Your task to perform on an android device: Turn off the flashlight Image 0: 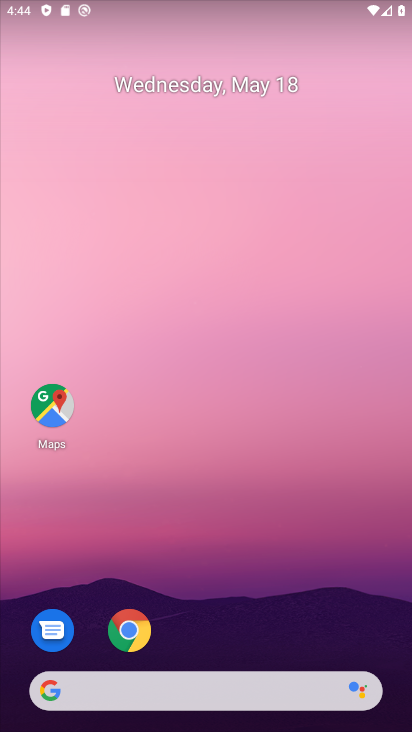
Step 0: drag from (248, 621) to (199, 173)
Your task to perform on an android device: Turn off the flashlight Image 1: 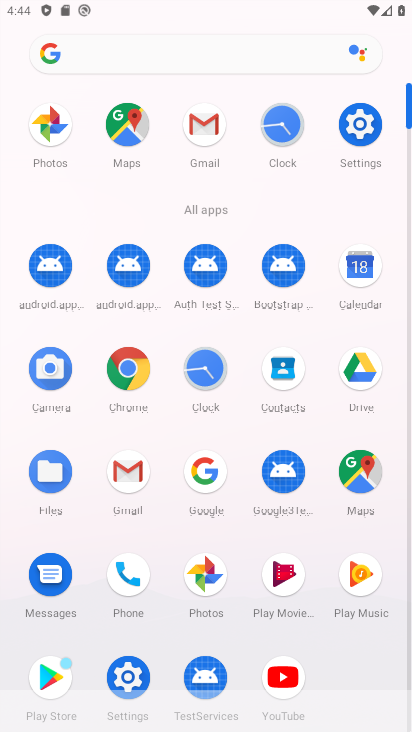
Step 1: click (127, 675)
Your task to perform on an android device: Turn off the flashlight Image 2: 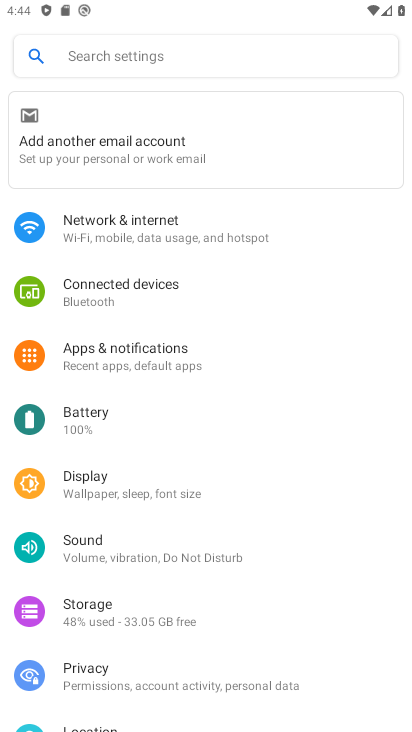
Step 2: click (118, 485)
Your task to perform on an android device: Turn off the flashlight Image 3: 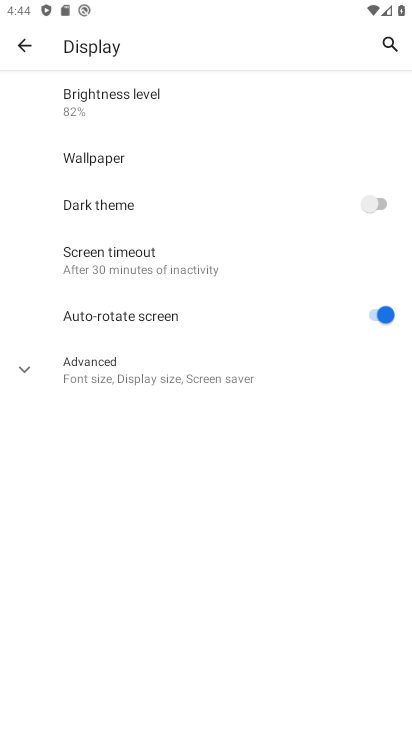
Step 3: click (156, 386)
Your task to perform on an android device: Turn off the flashlight Image 4: 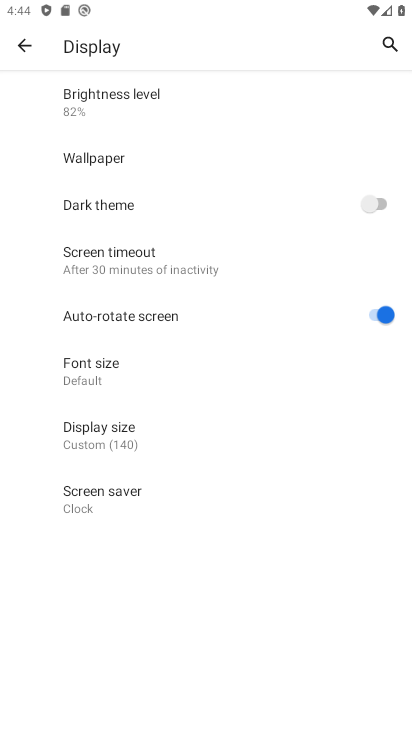
Step 4: click (122, 485)
Your task to perform on an android device: Turn off the flashlight Image 5: 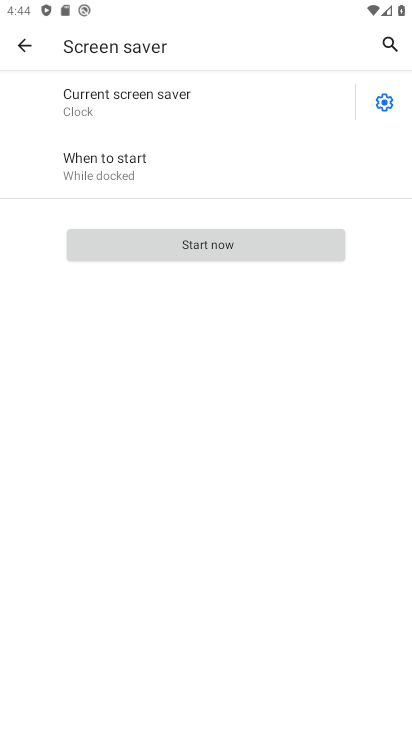
Step 5: click (390, 103)
Your task to perform on an android device: Turn off the flashlight Image 6: 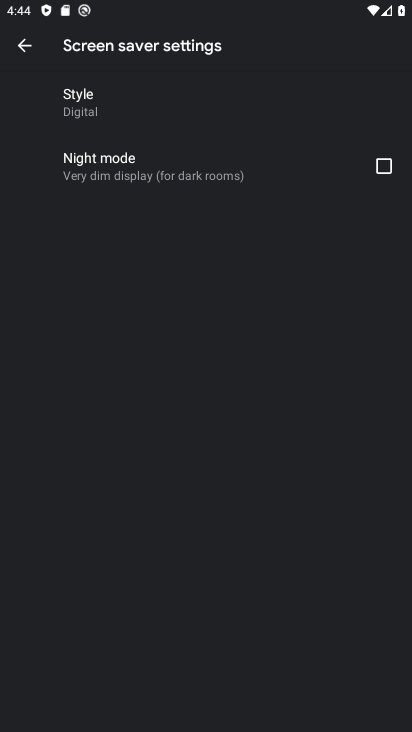
Step 6: press back button
Your task to perform on an android device: Turn off the flashlight Image 7: 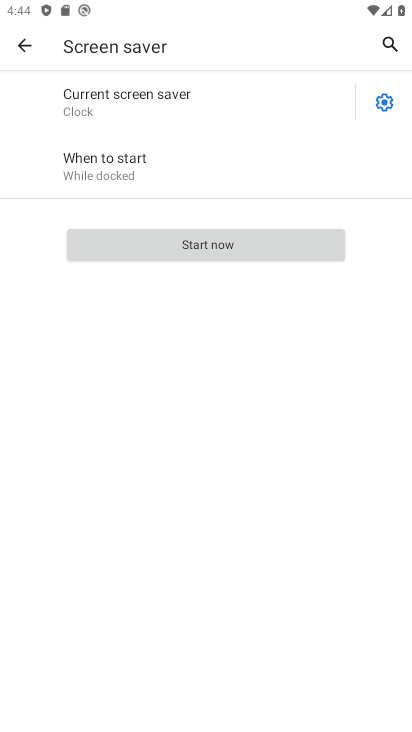
Step 7: click (17, 48)
Your task to perform on an android device: Turn off the flashlight Image 8: 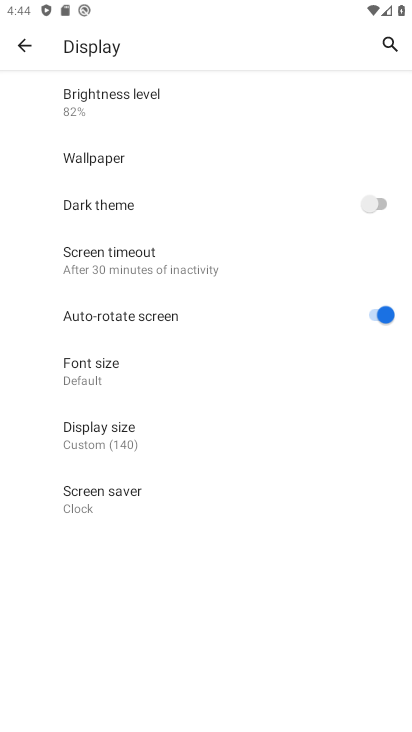
Step 8: click (37, 55)
Your task to perform on an android device: Turn off the flashlight Image 9: 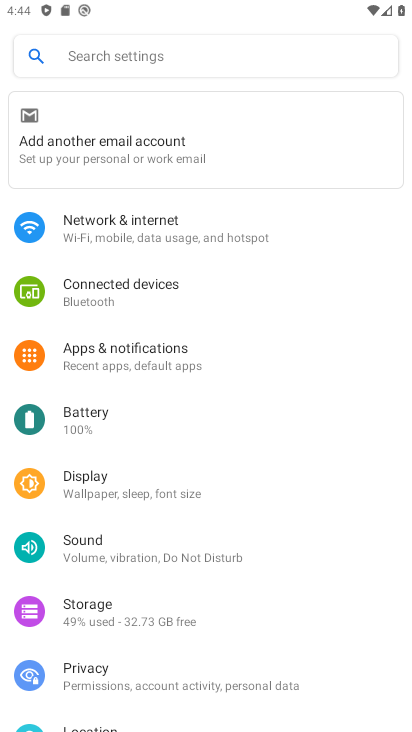
Step 9: drag from (134, 499) to (199, 361)
Your task to perform on an android device: Turn off the flashlight Image 10: 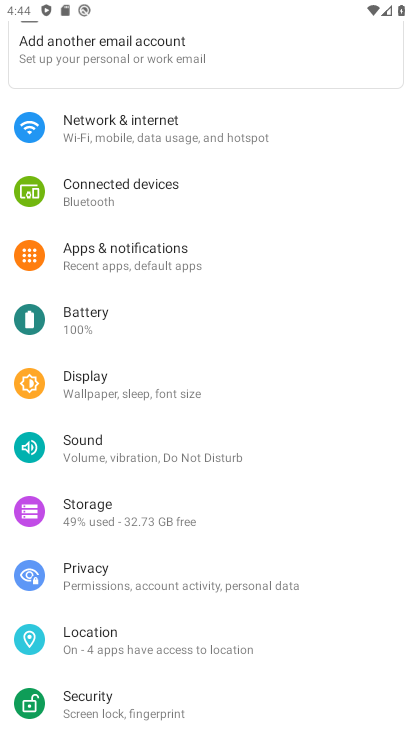
Step 10: click (191, 590)
Your task to perform on an android device: Turn off the flashlight Image 11: 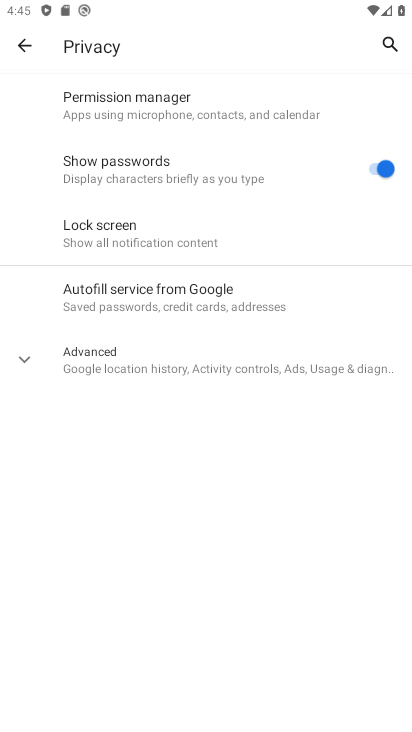
Step 11: task complete